Your task to perform on an android device: open chrome and create a bookmark for the current page Image 0: 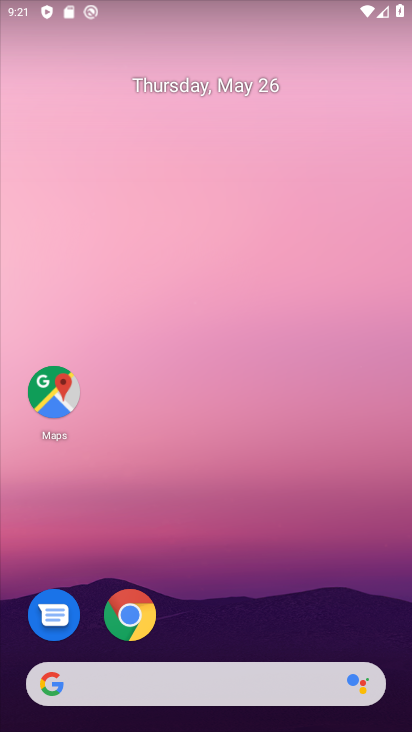
Step 0: click (141, 623)
Your task to perform on an android device: open chrome and create a bookmark for the current page Image 1: 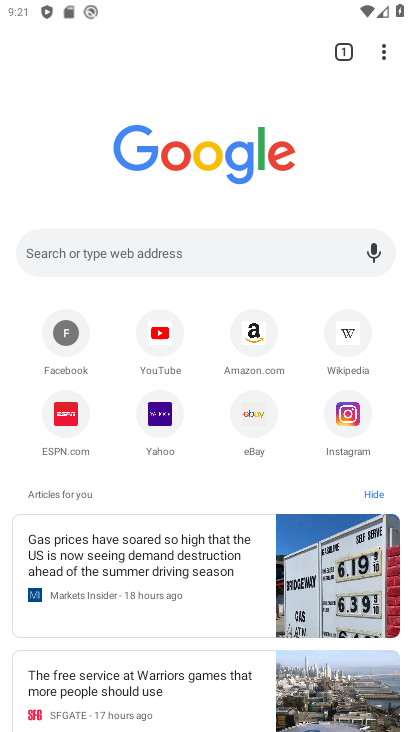
Step 1: click (381, 53)
Your task to perform on an android device: open chrome and create a bookmark for the current page Image 2: 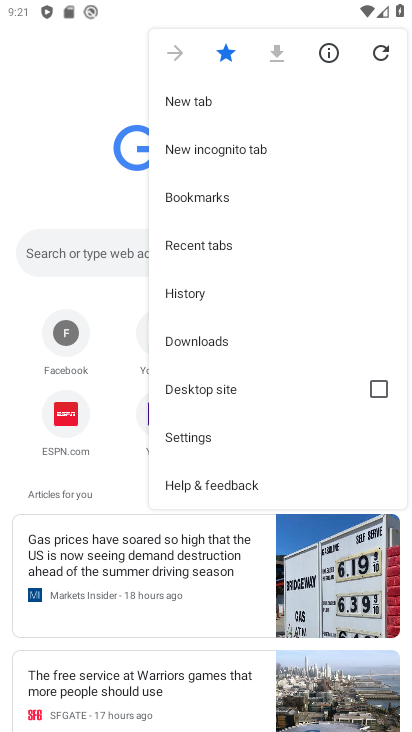
Step 2: task complete